Your task to perform on an android device: turn notification dots on Image 0: 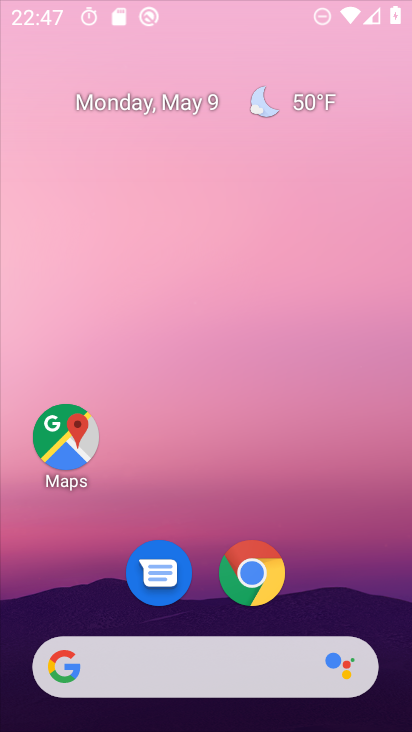
Step 0: click (316, 395)
Your task to perform on an android device: turn notification dots on Image 1: 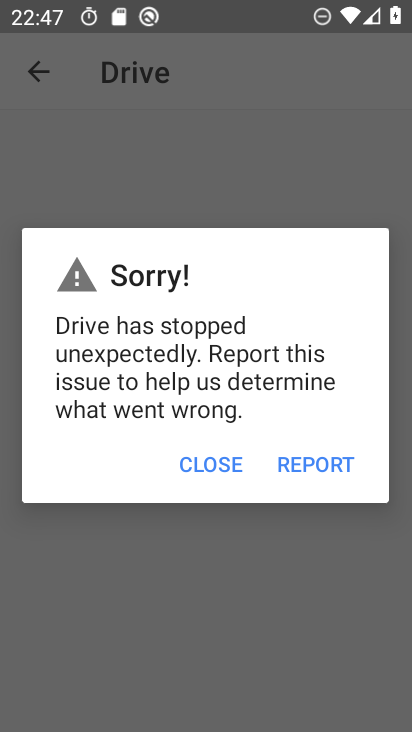
Step 1: press home button
Your task to perform on an android device: turn notification dots on Image 2: 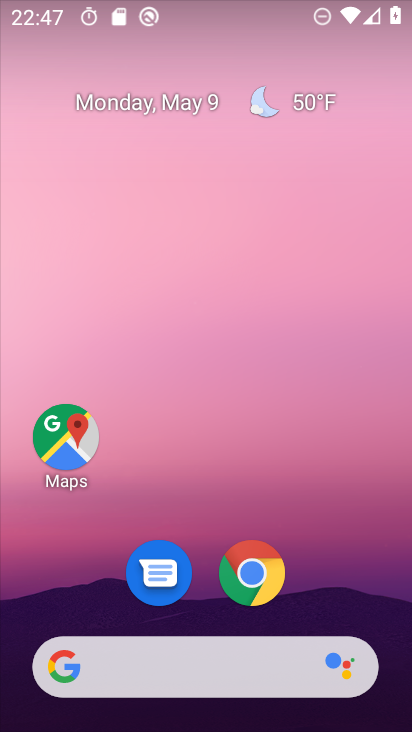
Step 2: drag from (342, 582) to (232, 81)
Your task to perform on an android device: turn notification dots on Image 3: 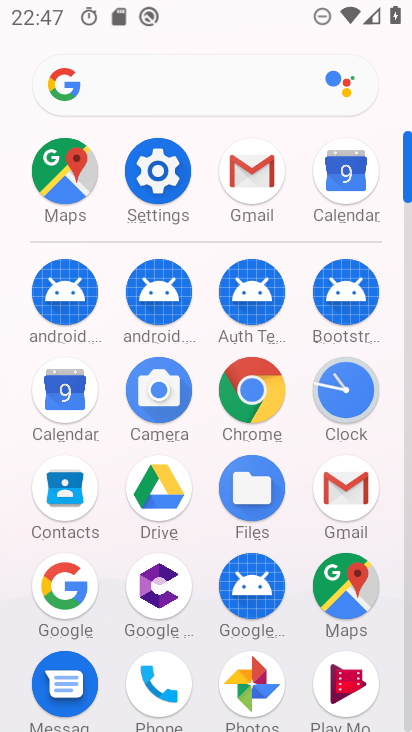
Step 3: click (178, 160)
Your task to perform on an android device: turn notification dots on Image 4: 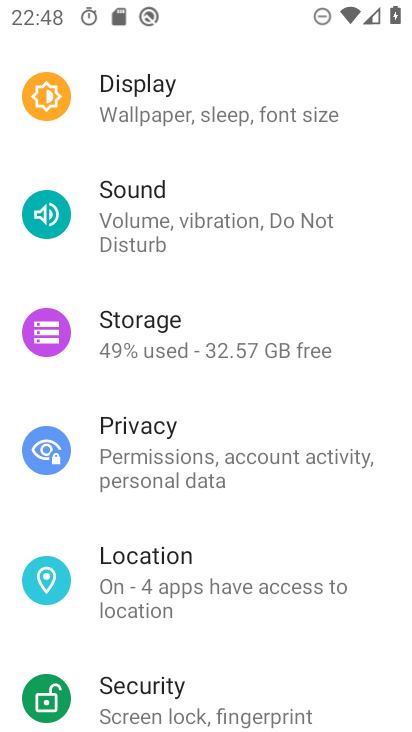
Step 4: drag from (243, 194) to (301, 502)
Your task to perform on an android device: turn notification dots on Image 5: 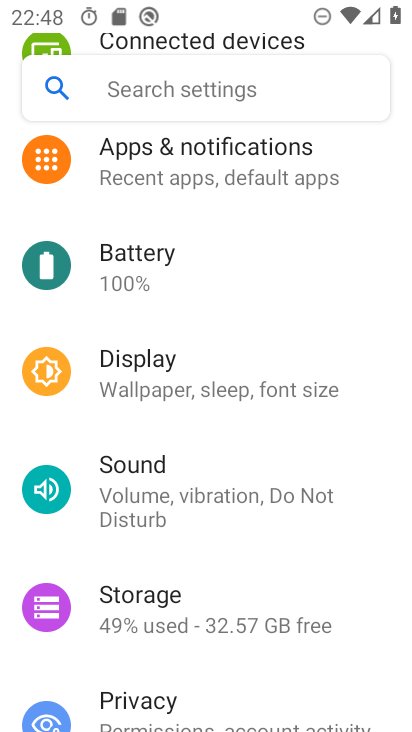
Step 5: drag from (245, 257) to (253, 461)
Your task to perform on an android device: turn notification dots on Image 6: 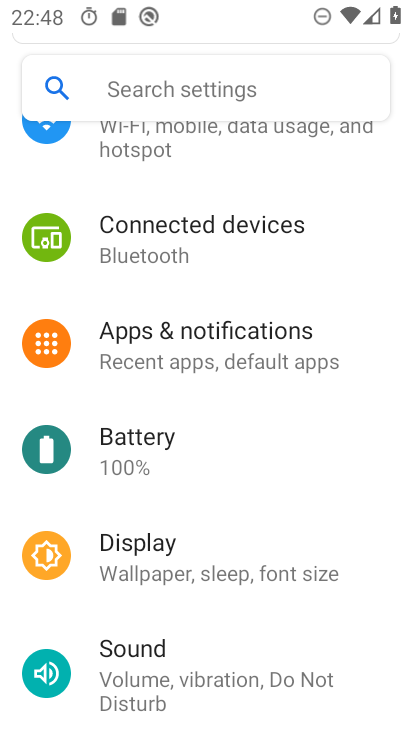
Step 6: click (242, 347)
Your task to perform on an android device: turn notification dots on Image 7: 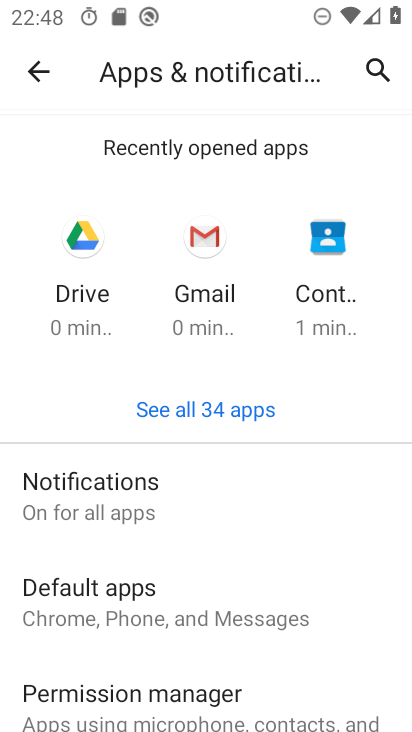
Step 7: click (128, 510)
Your task to perform on an android device: turn notification dots on Image 8: 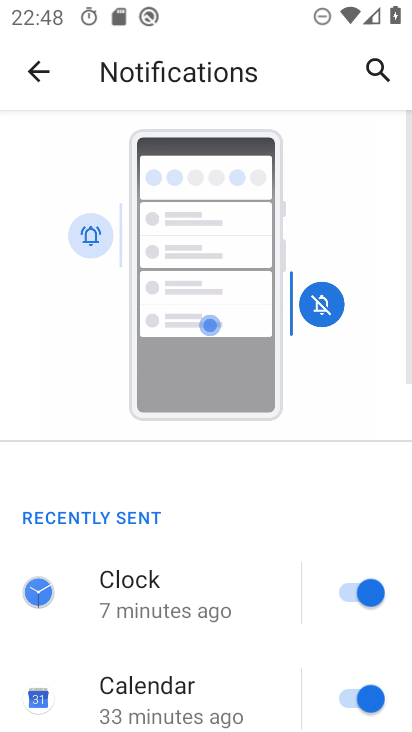
Step 8: drag from (163, 535) to (132, 103)
Your task to perform on an android device: turn notification dots on Image 9: 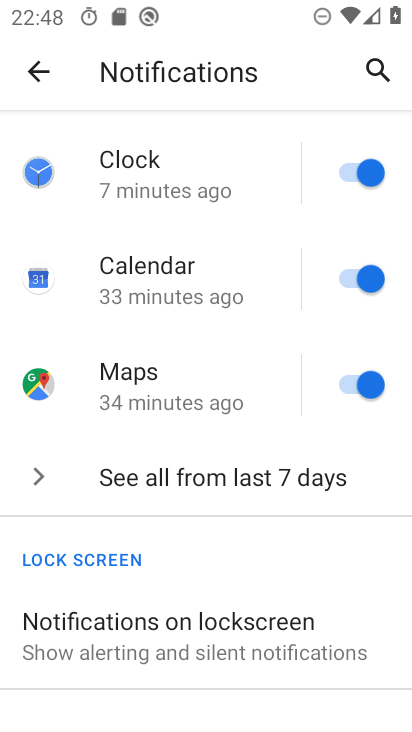
Step 9: drag from (196, 510) to (160, 201)
Your task to perform on an android device: turn notification dots on Image 10: 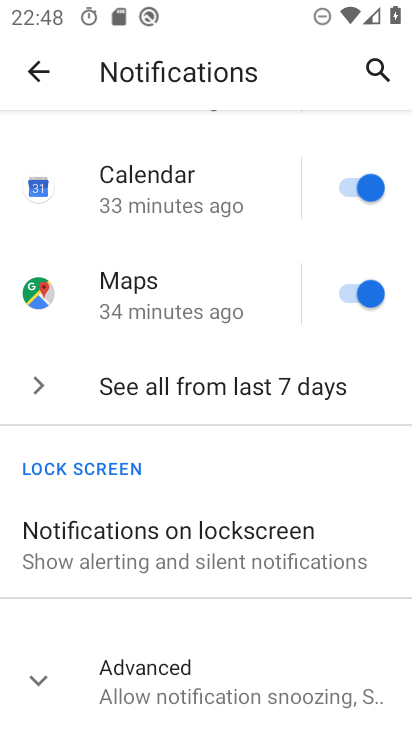
Step 10: click (142, 653)
Your task to perform on an android device: turn notification dots on Image 11: 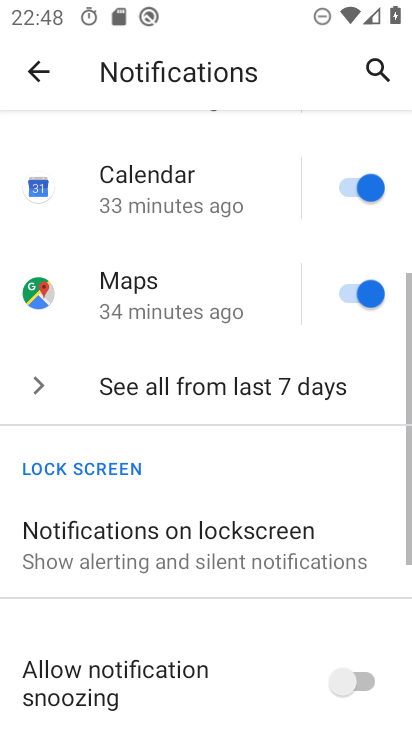
Step 11: drag from (229, 618) to (206, 268)
Your task to perform on an android device: turn notification dots on Image 12: 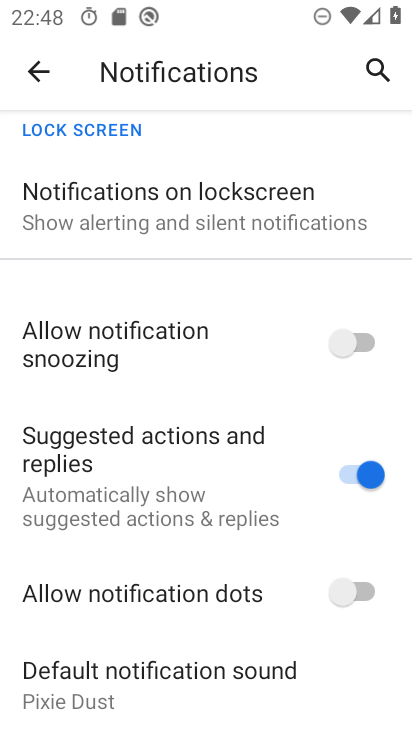
Step 12: click (336, 580)
Your task to perform on an android device: turn notification dots on Image 13: 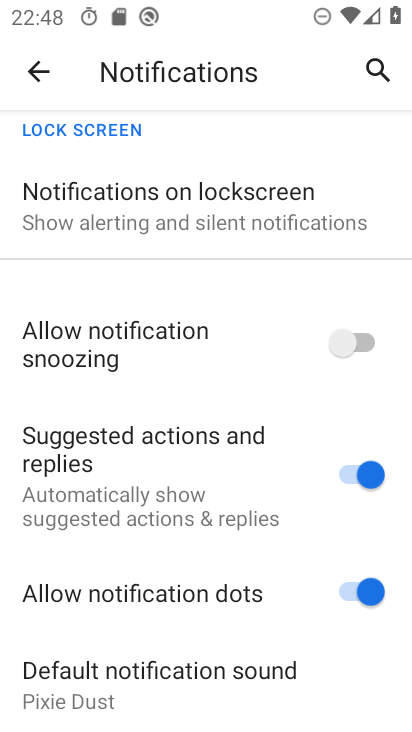
Step 13: task complete